Your task to perform on an android device: allow notifications from all sites in the chrome app Image 0: 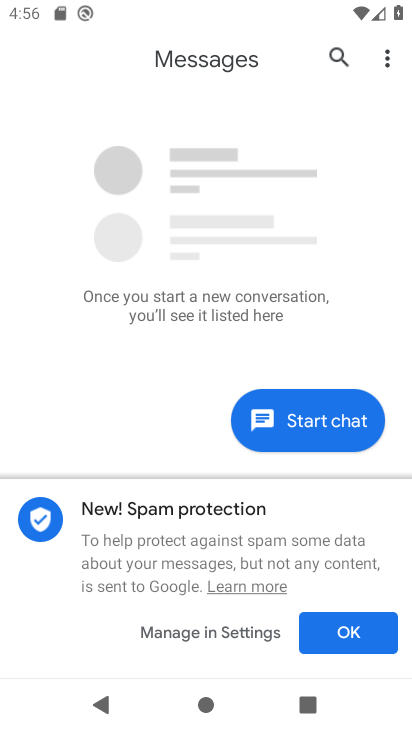
Step 0: press back button
Your task to perform on an android device: allow notifications from all sites in the chrome app Image 1: 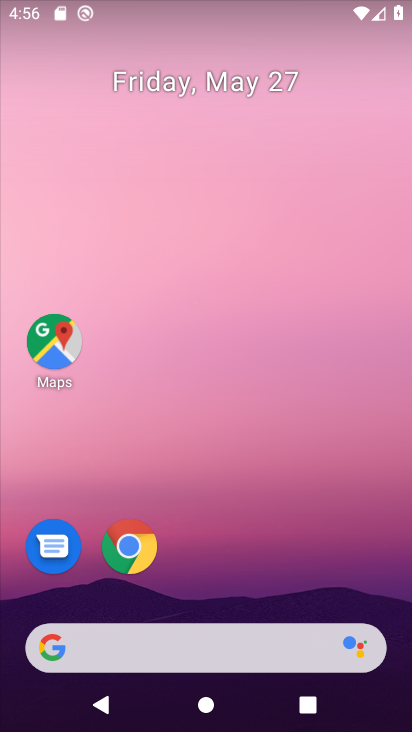
Step 1: drag from (293, 572) to (221, 47)
Your task to perform on an android device: allow notifications from all sites in the chrome app Image 2: 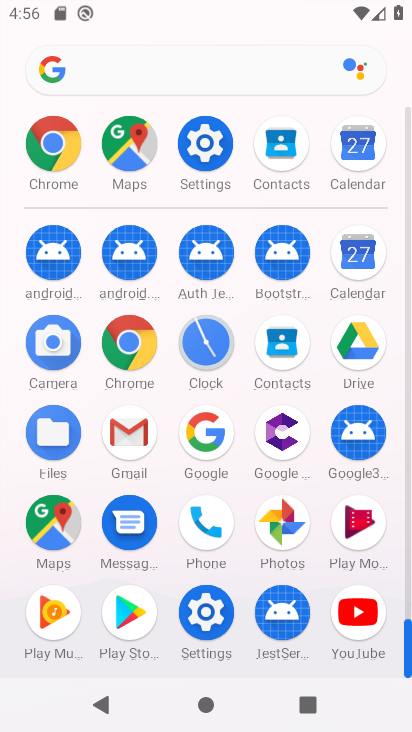
Step 2: drag from (19, 525) to (32, 194)
Your task to perform on an android device: allow notifications from all sites in the chrome app Image 3: 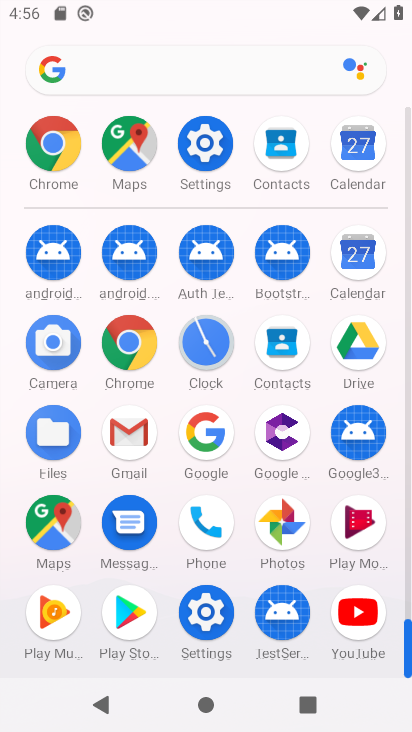
Step 3: click (129, 338)
Your task to perform on an android device: allow notifications from all sites in the chrome app Image 4: 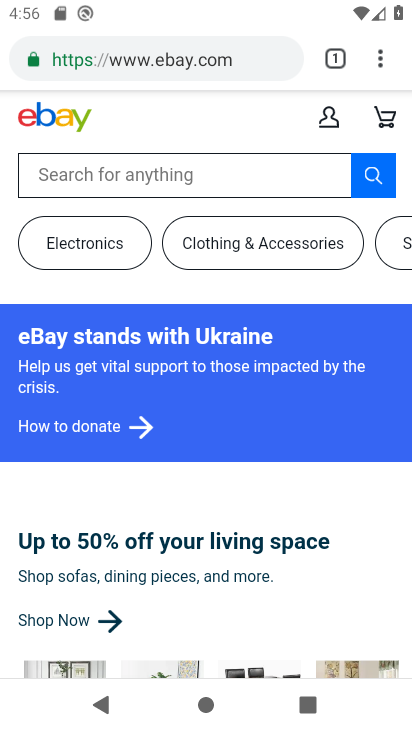
Step 4: drag from (380, 56) to (196, 555)
Your task to perform on an android device: allow notifications from all sites in the chrome app Image 5: 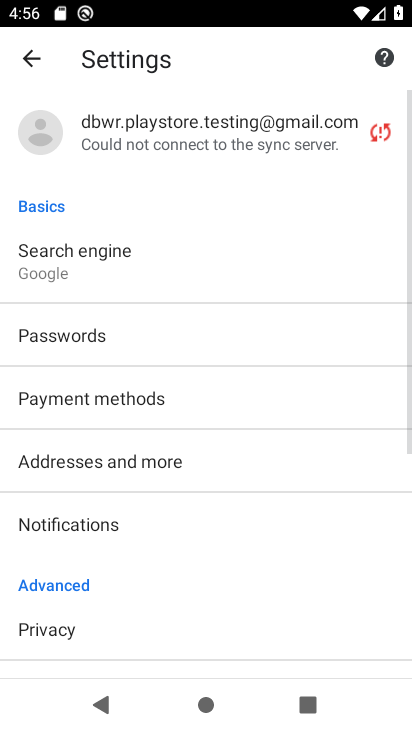
Step 5: drag from (196, 553) to (244, 211)
Your task to perform on an android device: allow notifications from all sites in the chrome app Image 6: 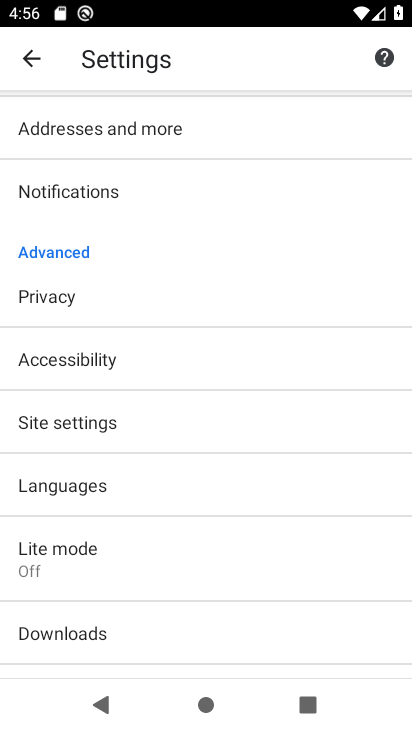
Step 6: drag from (239, 497) to (218, 195)
Your task to perform on an android device: allow notifications from all sites in the chrome app Image 7: 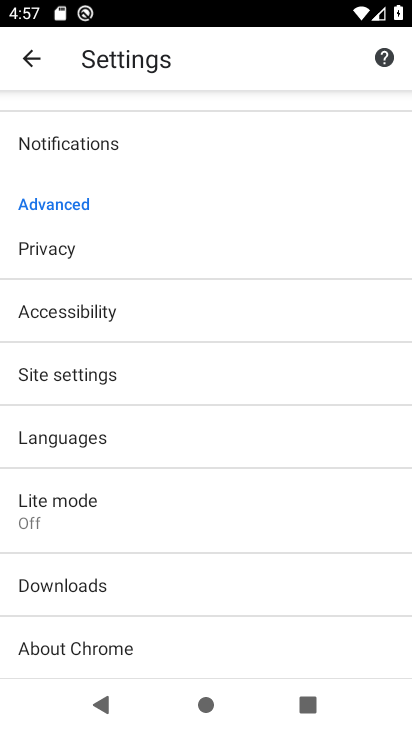
Step 7: click (131, 375)
Your task to perform on an android device: allow notifications from all sites in the chrome app Image 8: 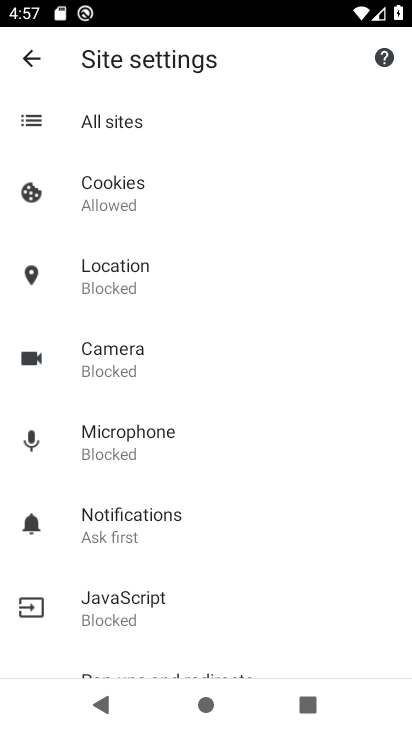
Step 8: drag from (237, 542) to (243, 158)
Your task to perform on an android device: allow notifications from all sites in the chrome app Image 9: 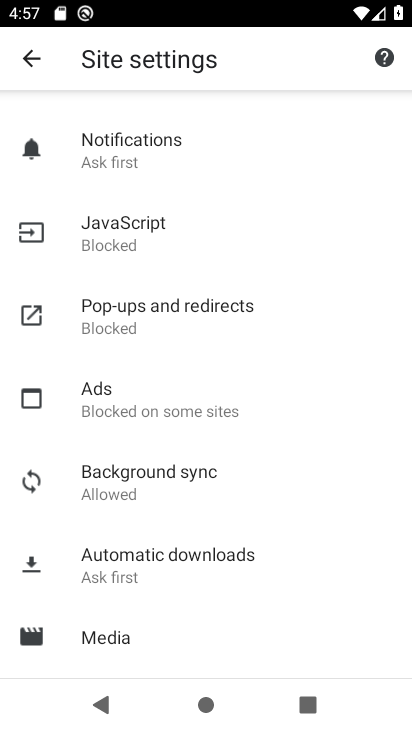
Step 9: drag from (259, 532) to (248, 183)
Your task to perform on an android device: allow notifications from all sites in the chrome app Image 10: 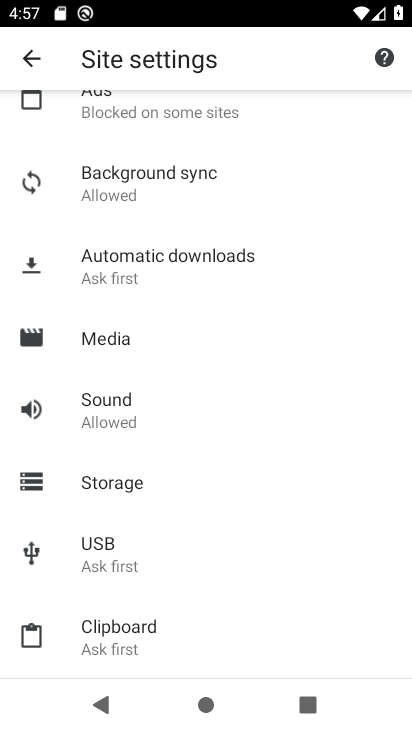
Step 10: drag from (221, 180) to (249, 603)
Your task to perform on an android device: allow notifications from all sites in the chrome app Image 11: 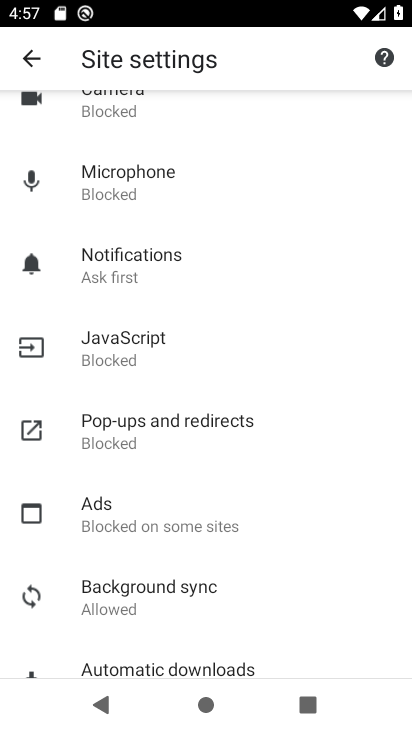
Step 11: click (151, 255)
Your task to perform on an android device: allow notifications from all sites in the chrome app Image 12: 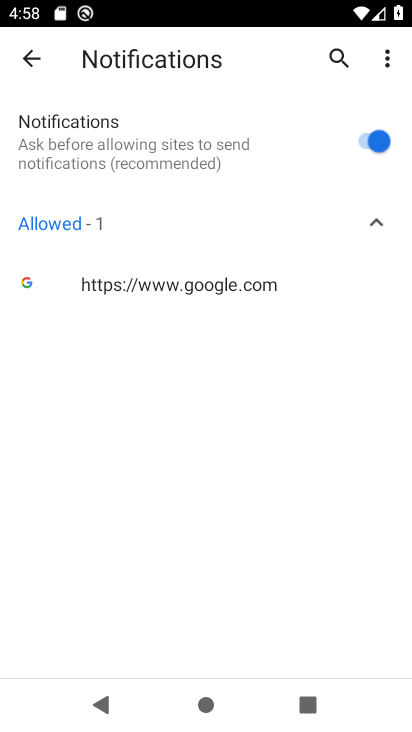
Step 12: task complete